Your task to perform on an android device: Open Android settings Image 0: 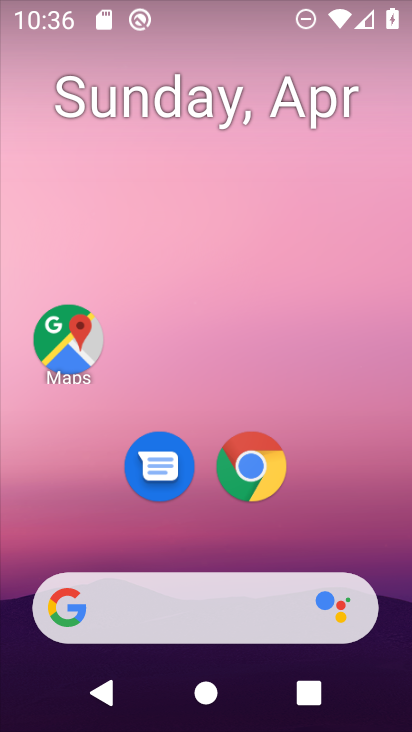
Step 0: drag from (354, 523) to (344, 149)
Your task to perform on an android device: Open Android settings Image 1: 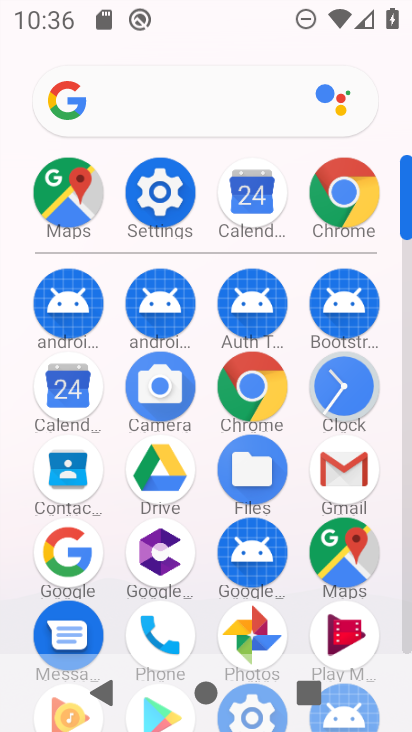
Step 1: drag from (295, 516) to (288, 219)
Your task to perform on an android device: Open Android settings Image 2: 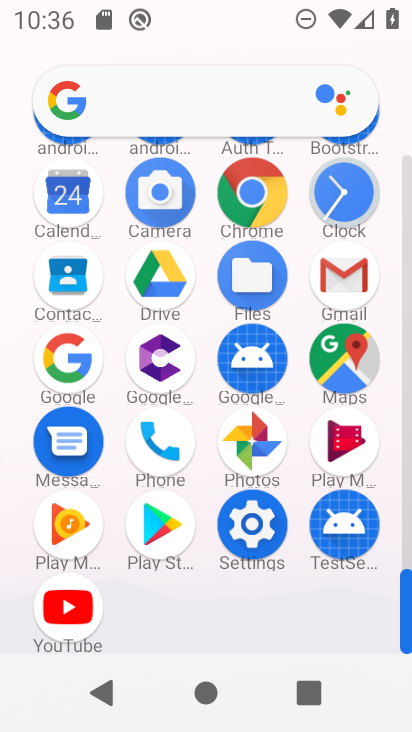
Step 2: click (257, 524)
Your task to perform on an android device: Open Android settings Image 3: 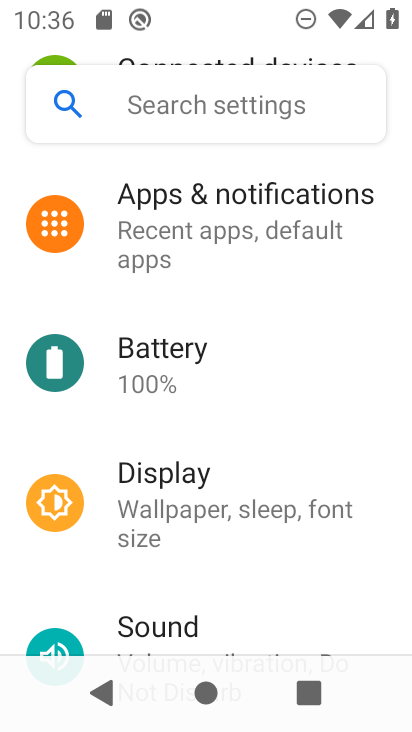
Step 3: drag from (363, 305) to (352, 532)
Your task to perform on an android device: Open Android settings Image 4: 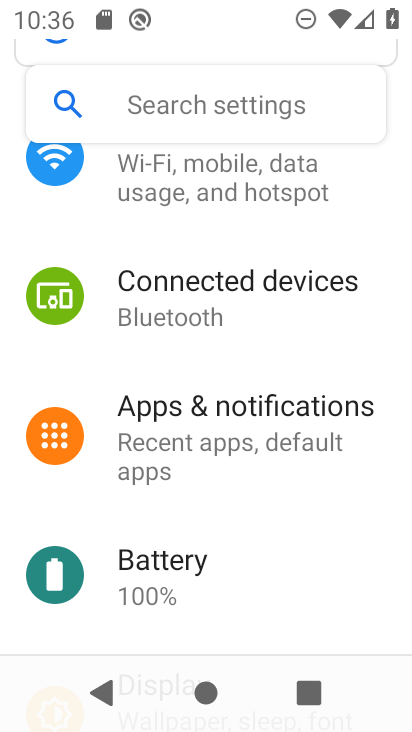
Step 4: drag from (383, 221) to (371, 526)
Your task to perform on an android device: Open Android settings Image 5: 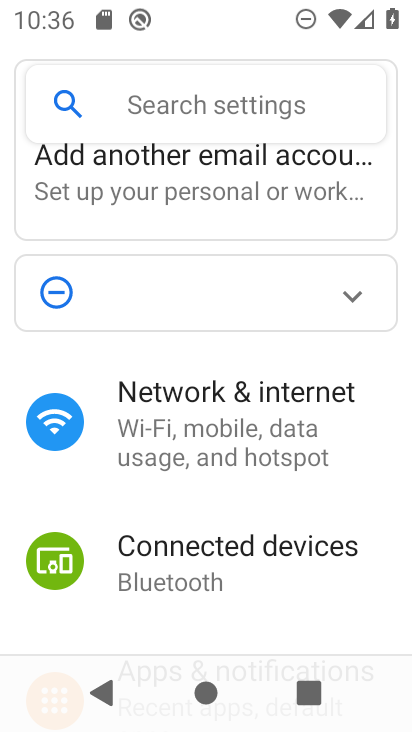
Step 5: drag from (381, 378) to (378, 490)
Your task to perform on an android device: Open Android settings Image 6: 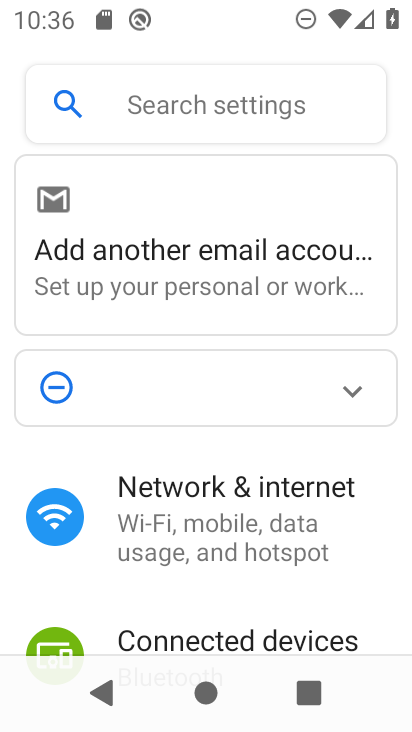
Step 6: drag from (371, 529) to (374, 367)
Your task to perform on an android device: Open Android settings Image 7: 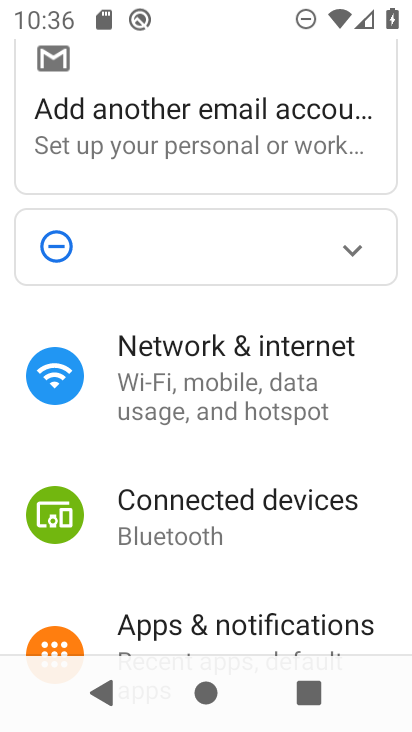
Step 7: drag from (369, 574) to (367, 421)
Your task to perform on an android device: Open Android settings Image 8: 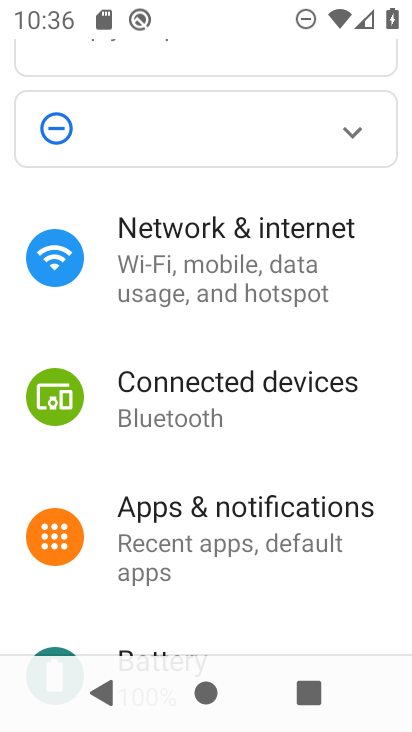
Step 8: drag from (373, 471) to (376, 322)
Your task to perform on an android device: Open Android settings Image 9: 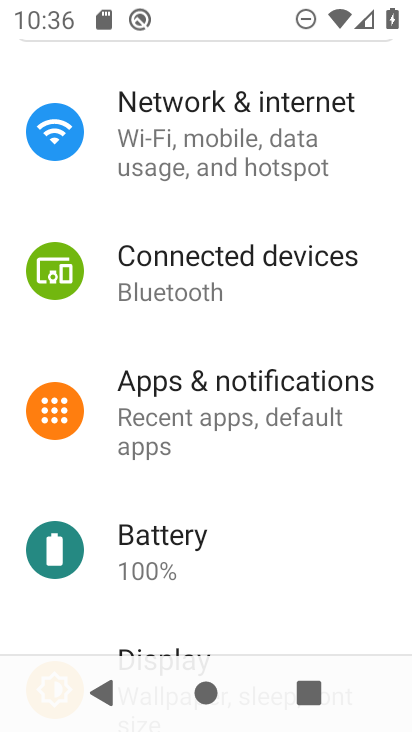
Step 9: drag from (329, 591) to (329, 366)
Your task to perform on an android device: Open Android settings Image 10: 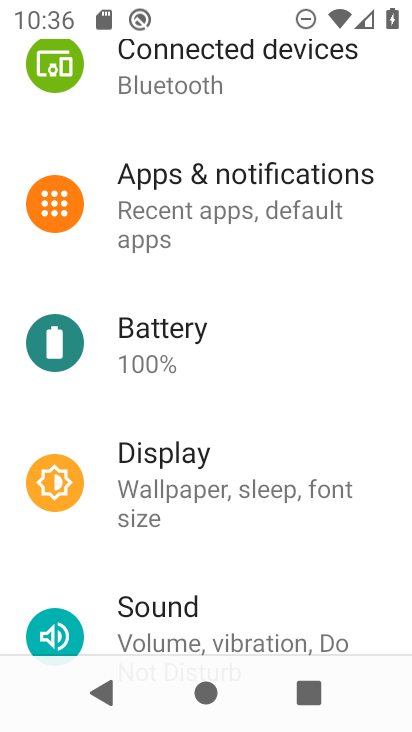
Step 10: drag from (332, 567) to (330, 314)
Your task to perform on an android device: Open Android settings Image 11: 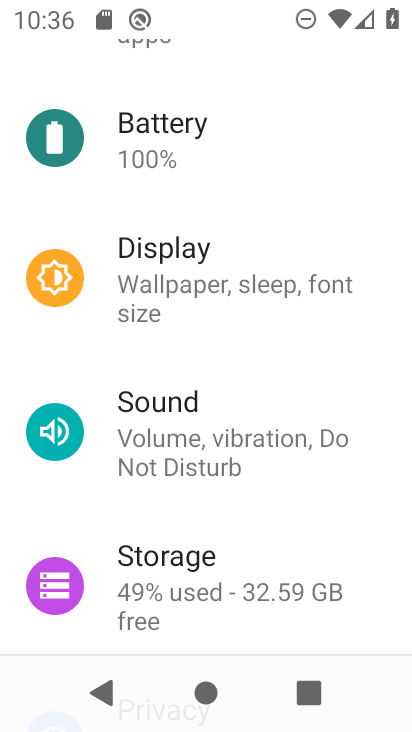
Step 11: drag from (334, 531) to (319, 270)
Your task to perform on an android device: Open Android settings Image 12: 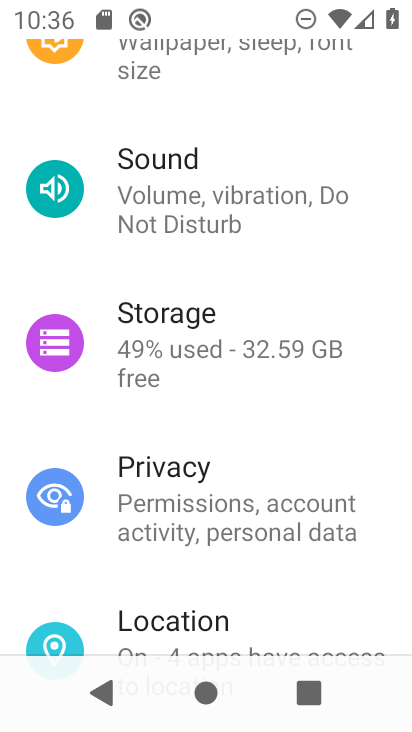
Step 12: drag from (327, 595) to (327, 237)
Your task to perform on an android device: Open Android settings Image 13: 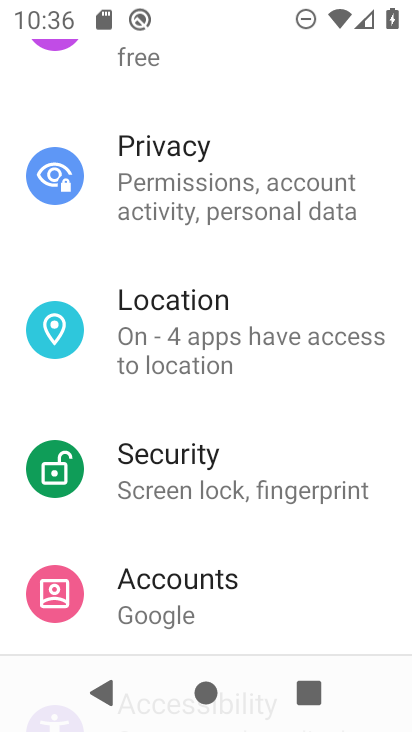
Step 13: drag from (283, 586) to (305, 256)
Your task to perform on an android device: Open Android settings Image 14: 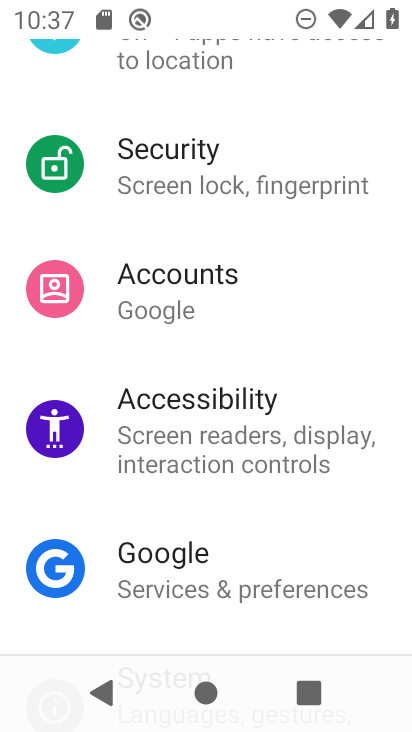
Step 14: drag from (325, 515) to (327, 264)
Your task to perform on an android device: Open Android settings Image 15: 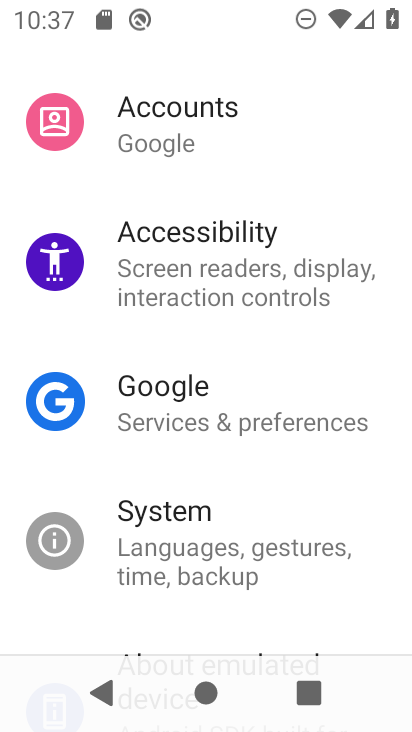
Step 15: drag from (294, 590) to (313, 333)
Your task to perform on an android device: Open Android settings Image 16: 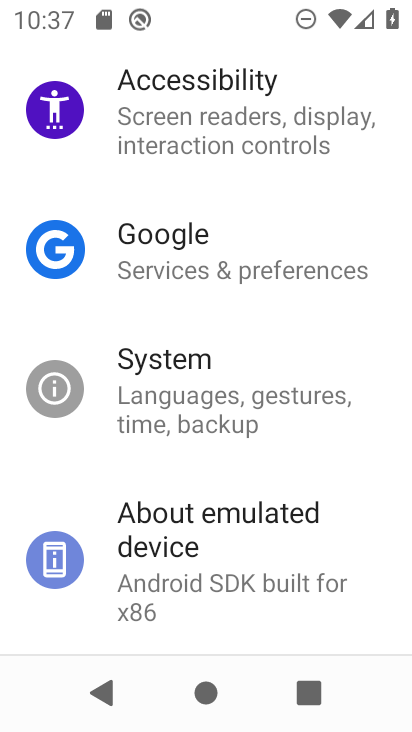
Step 16: click (228, 399)
Your task to perform on an android device: Open Android settings Image 17: 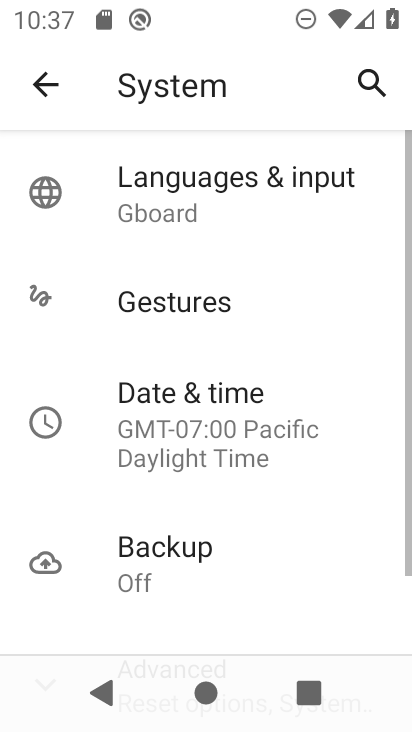
Step 17: drag from (305, 570) to (335, 342)
Your task to perform on an android device: Open Android settings Image 18: 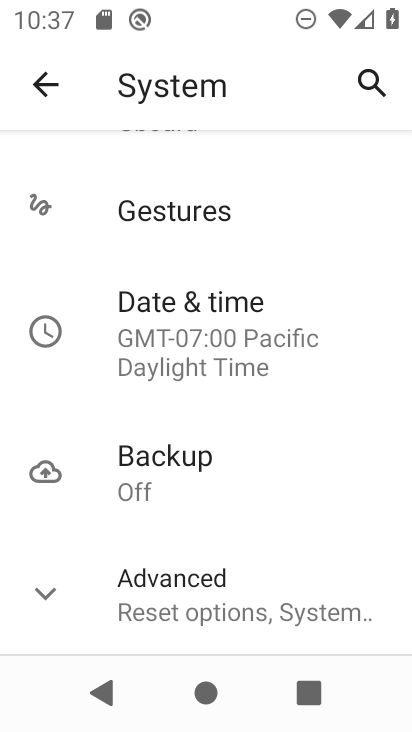
Step 18: click (205, 594)
Your task to perform on an android device: Open Android settings Image 19: 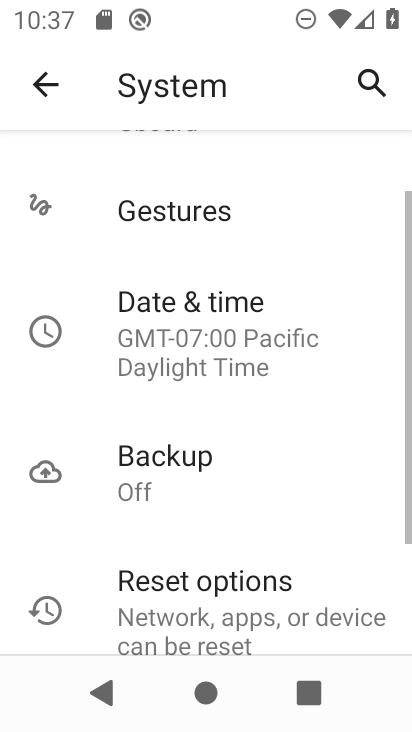
Step 19: task complete